Your task to perform on an android device: open app "Google Translate" Image 0: 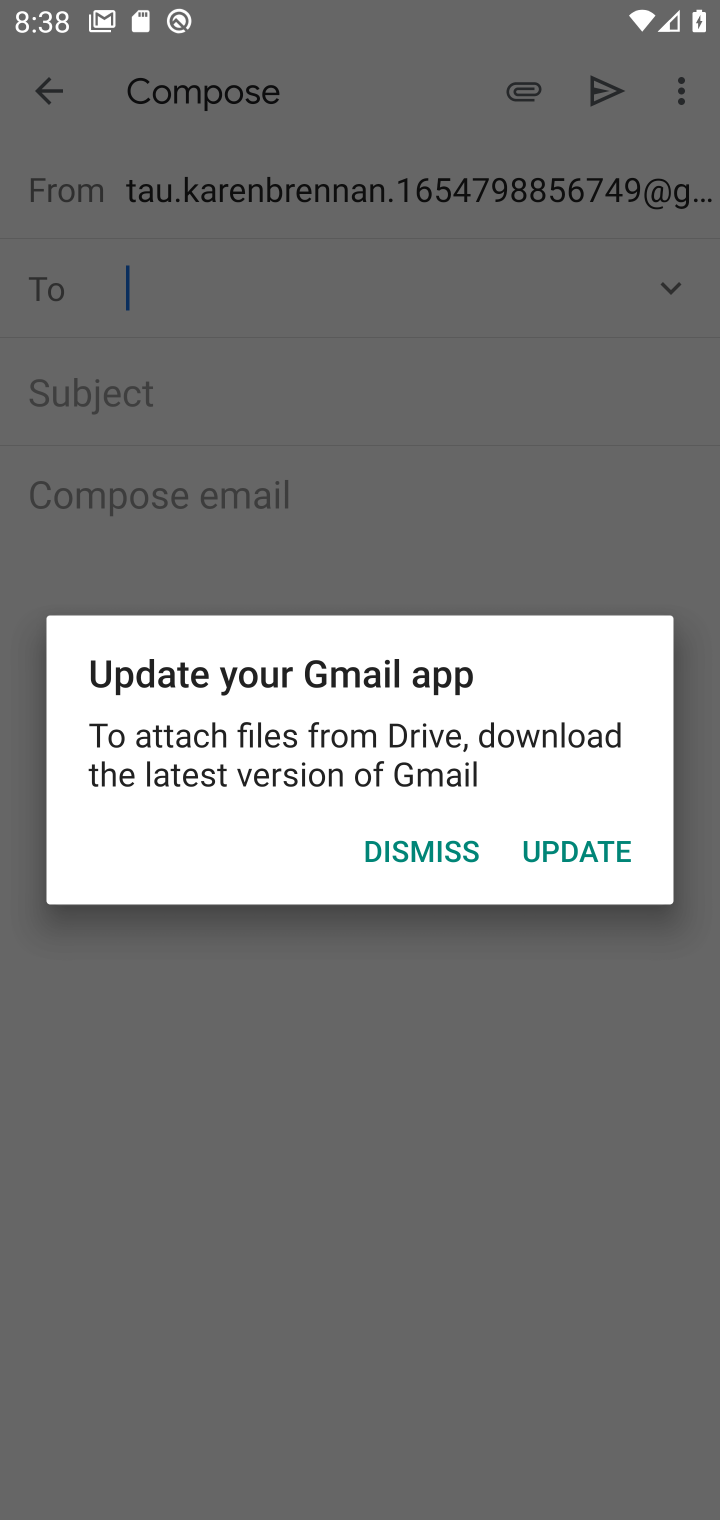
Step 0: press home button
Your task to perform on an android device: open app "Google Translate" Image 1: 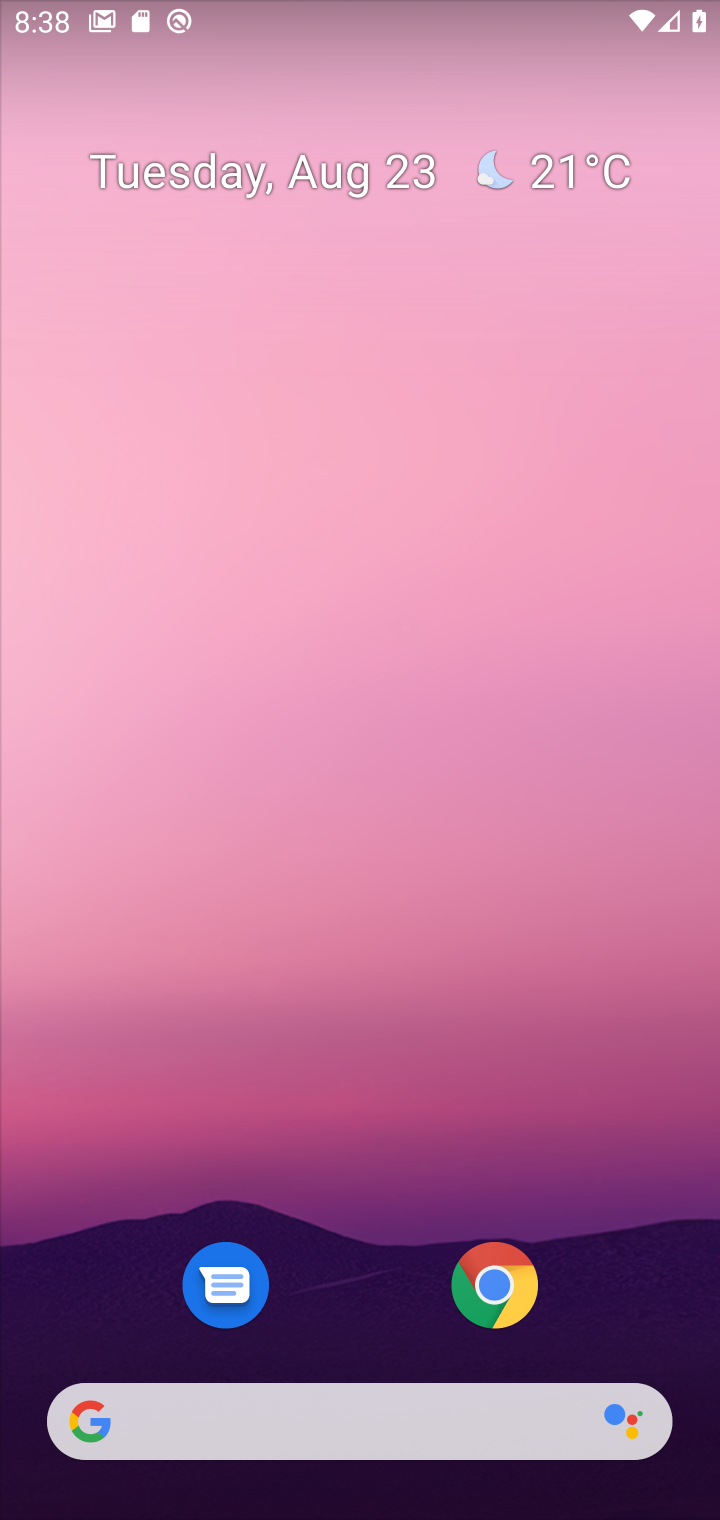
Step 1: drag from (670, 1266) to (594, 217)
Your task to perform on an android device: open app "Google Translate" Image 2: 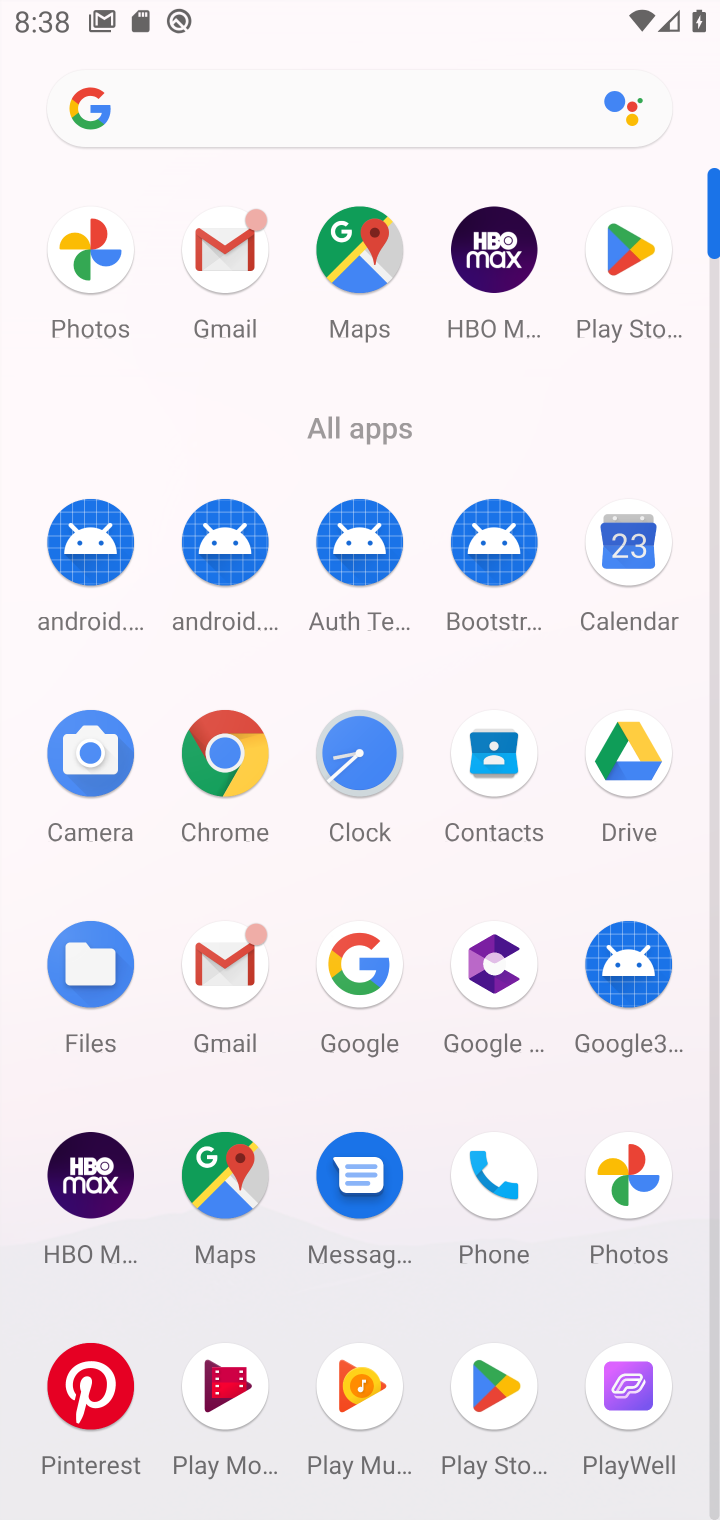
Step 2: click (498, 1386)
Your task to perform on an android device: open app "Google Translate" Image 3: 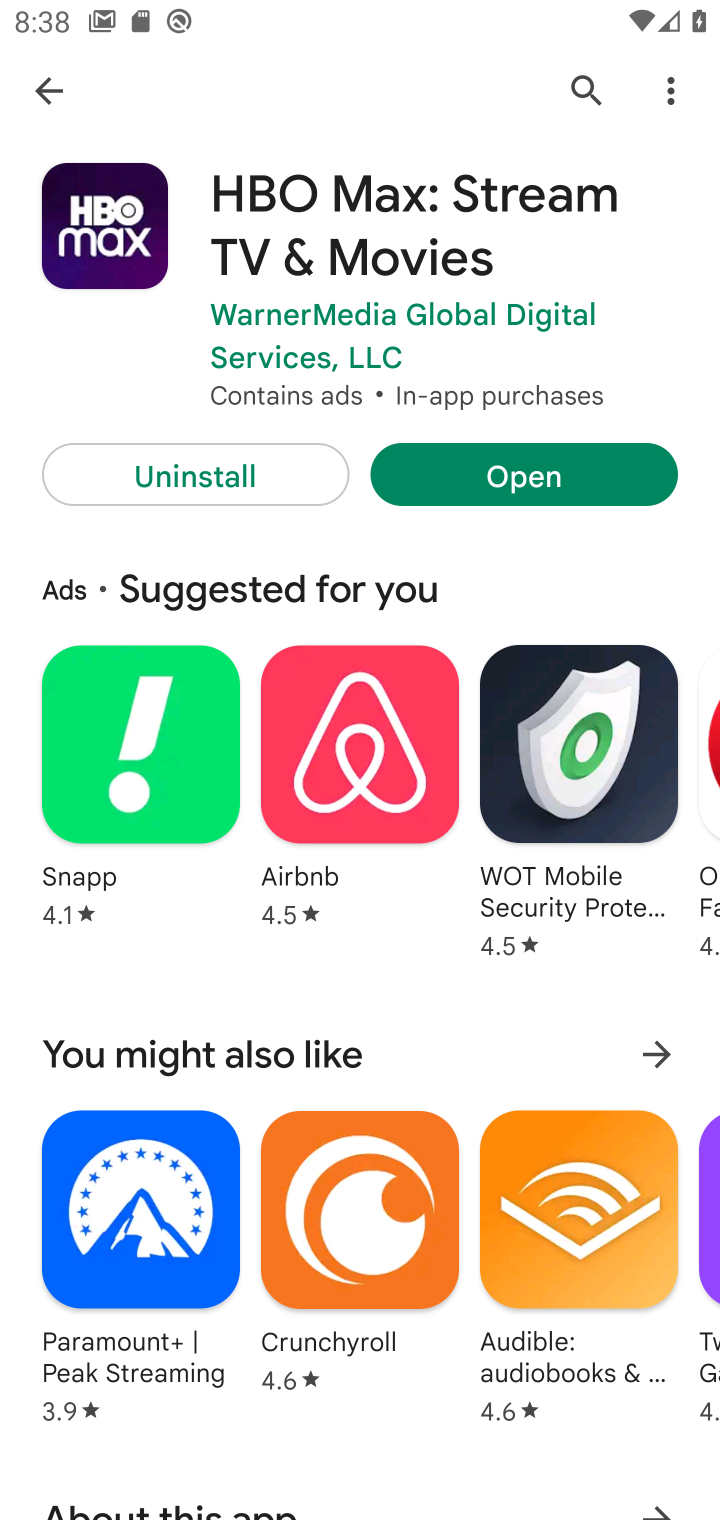
Step 3: click (583, 81)
Your task to perform on an android device: open app "Google Translate" Image 4: 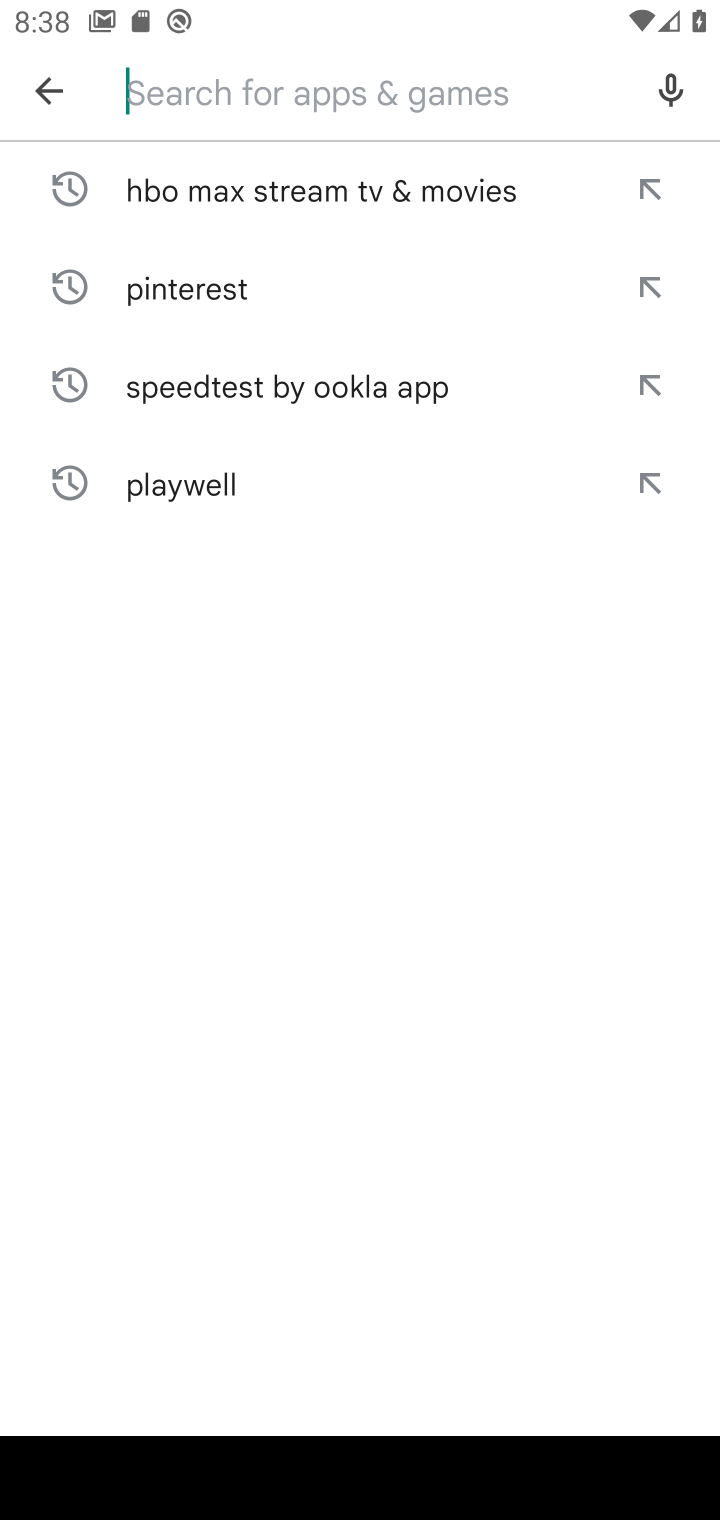
Step 4: type "Google Translate"
Your task to perform on an android device: open app "Google Translate" Image 5: 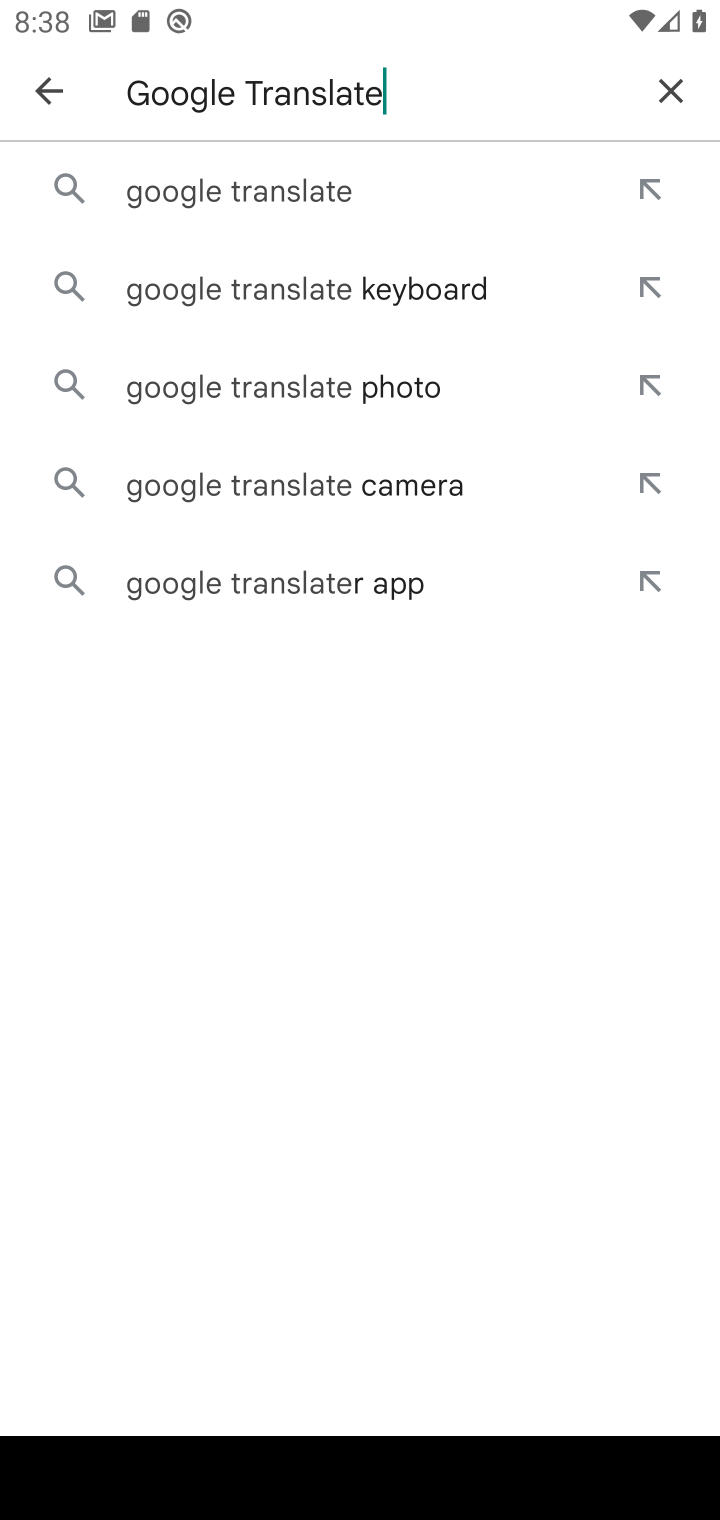
Step 5: click (231, 183)
Your task to perform on an android device: open app "Google Translate" Image 6: 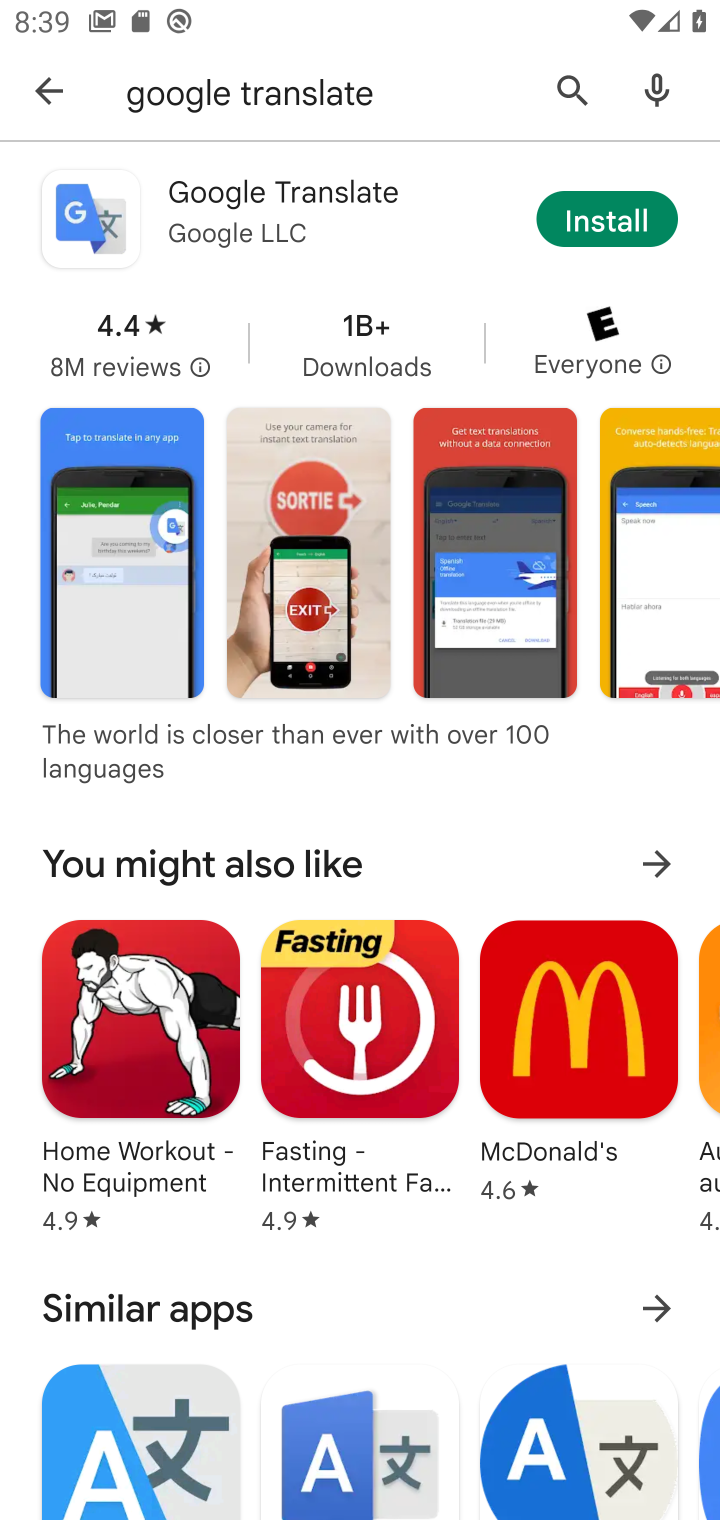
Step 6: task complete